Your task to perform on an android device: What is the news today? Image 0: 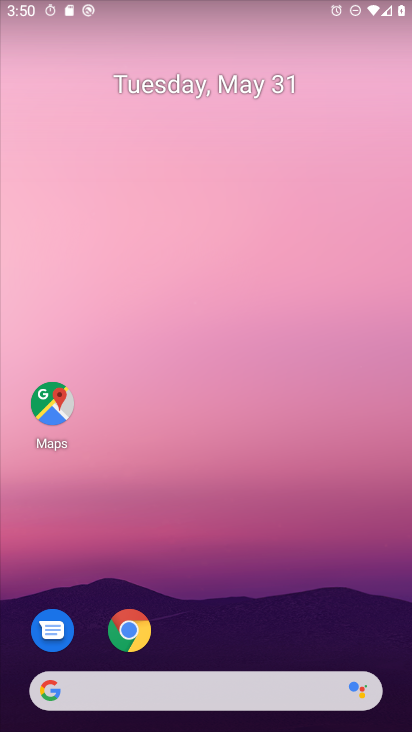
Step 0: drag from (308, 680) to (296, 34)
Your task to perform on an android device: What is the news today? Image 1: 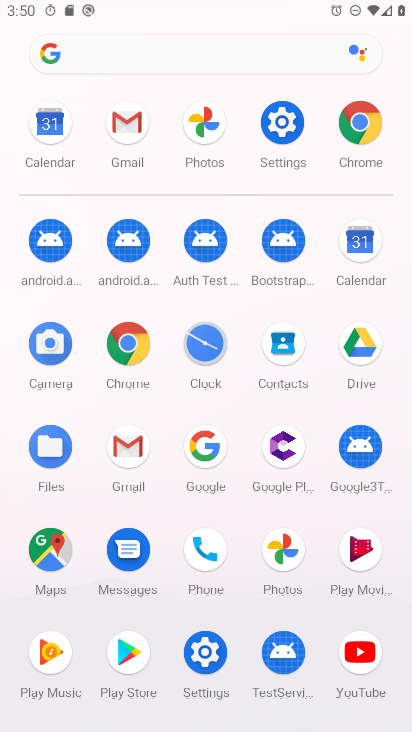
Step 1: click (133, 349)
Your task to perform on an android device: What is the news today? Image 2: 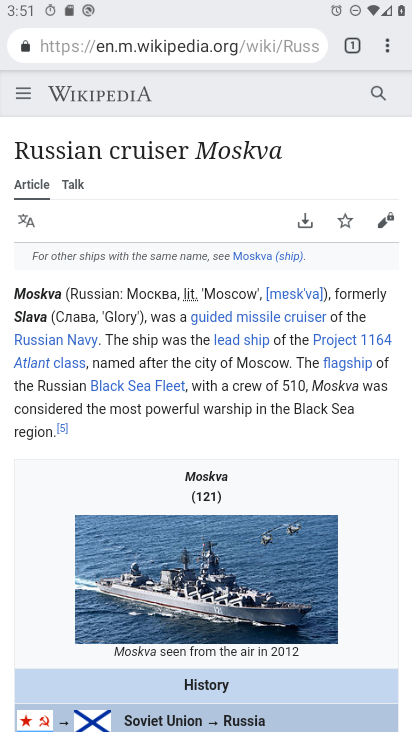
Step 2: click (208, 38)
Your task to perform on an android device: What is the news today? Image 3: 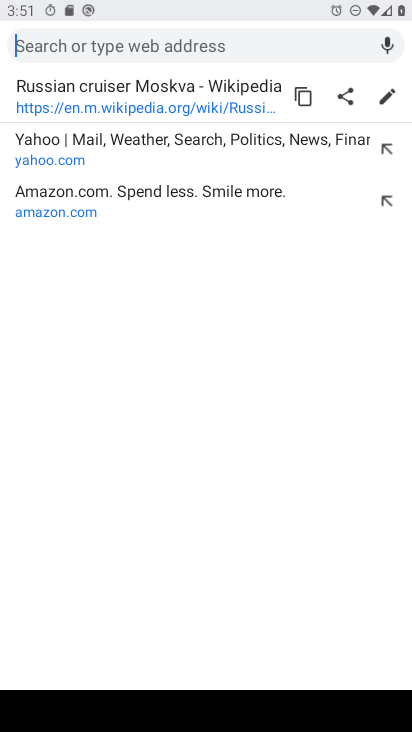
Step 3: type "news today"
Your task to perform on an android device: What is the news today? Image 4: 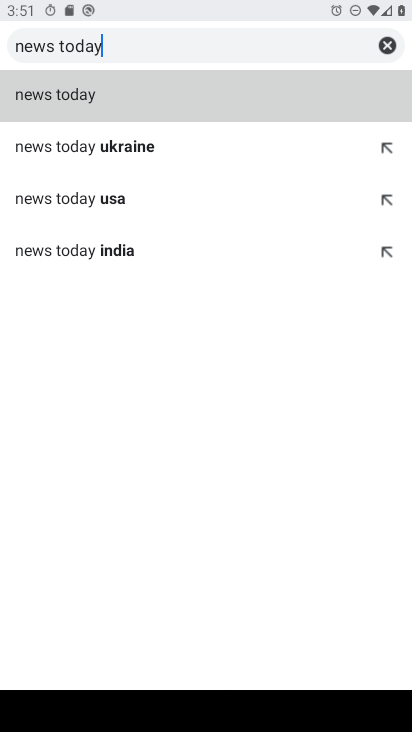
Step 4: click (238, 81)
Your task to perform on an android device: What is the news today? Image 5: 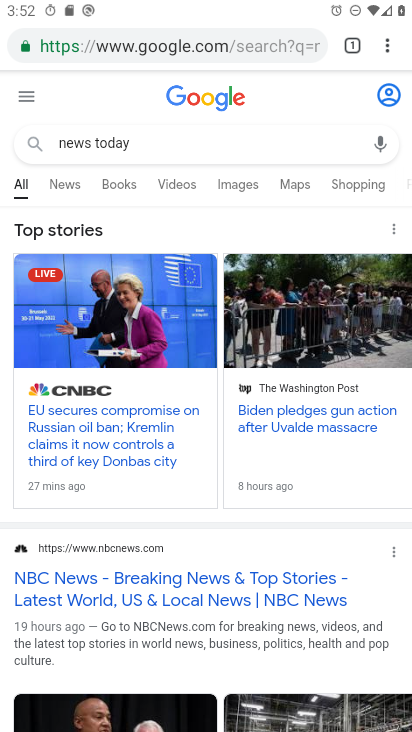
Step 5: task complete